Your task to perform on an android device: open app "Duolingo: language lessons" (install if not already installed) and enter user name: "omens@gmail.com" and password: "casks" Image 0: 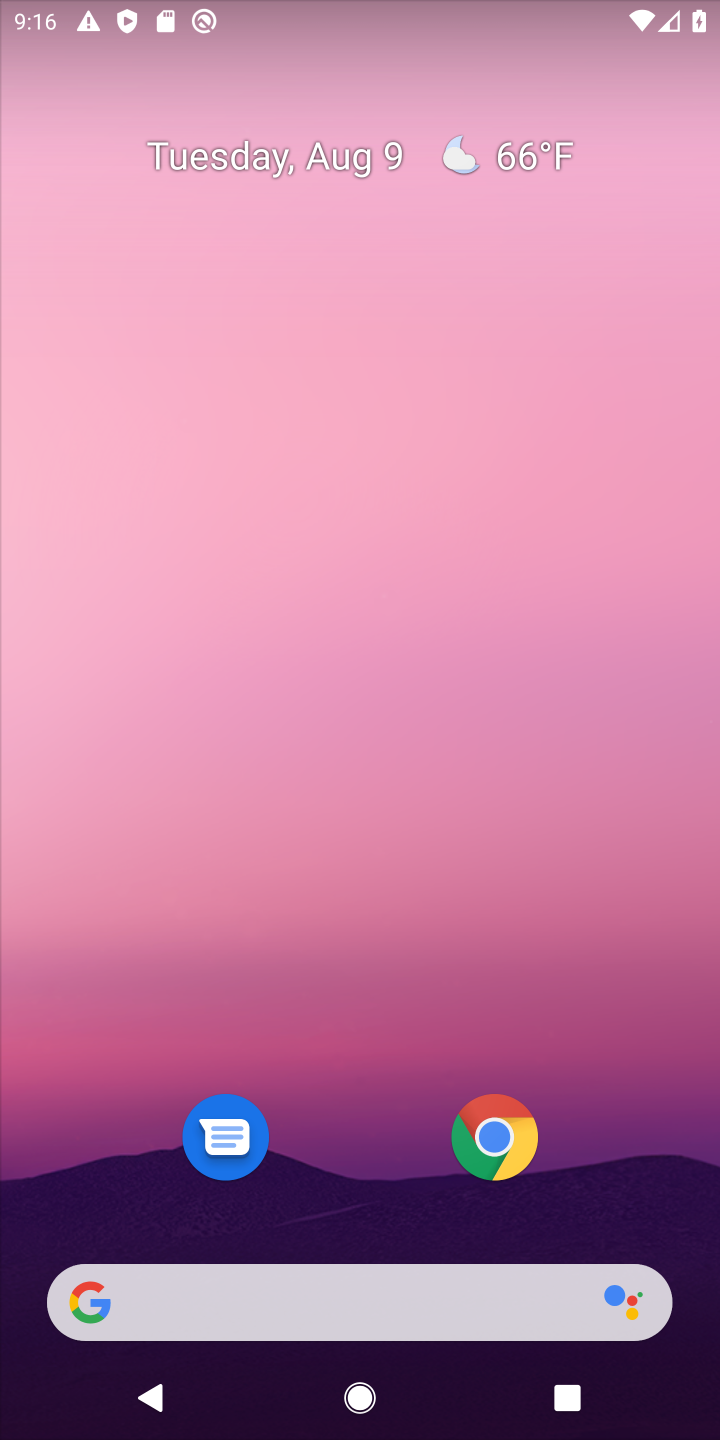
Step 0: drag from (648, 1212) to (405, 0)
Your task to perform on an android device: open app "Duolingo: language lessons" (install if not already installed) and enter user name: "omens@gmail.com" and password: "casks" Image 1: 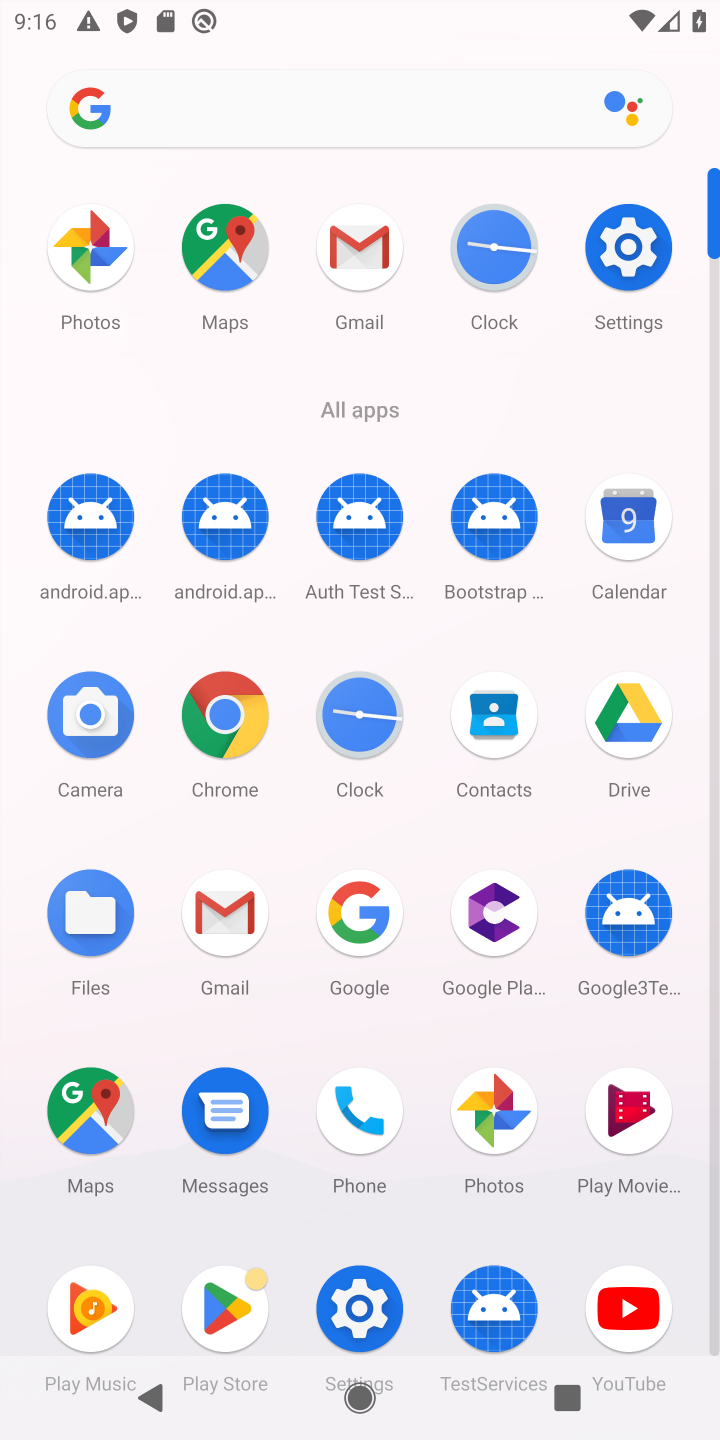
Step 1: click (224, 1311)
Your task to perform on an android device: open app "Duolingo: language lessons" (install if not already installed) and enter user name: "omens@gmail.com" and password: "casks" Image 2: 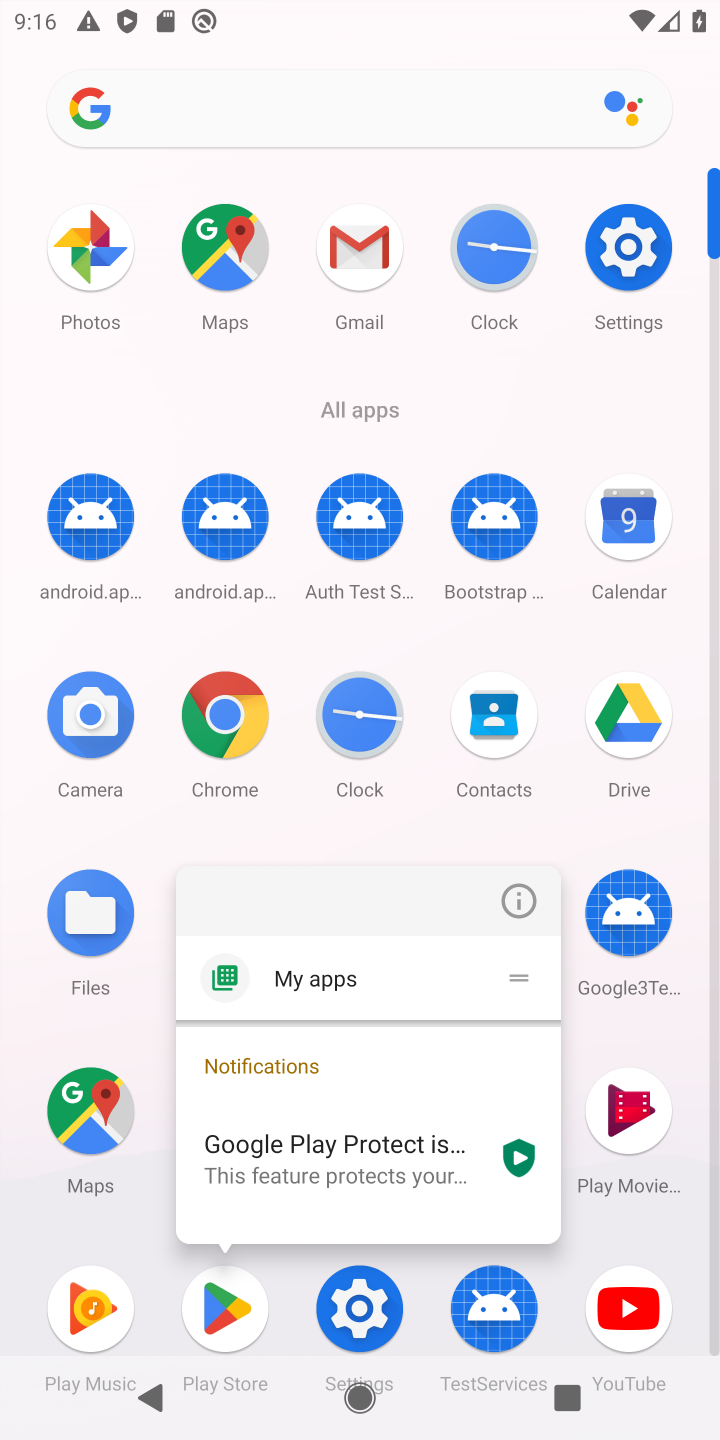
Step 2: click (248, 1296)
Your task to perform on an android device: open app "Duolingo: language lessons" (install if not already installed) and enter user name: "omens@gmail.com" and password: "casks" Image 3: 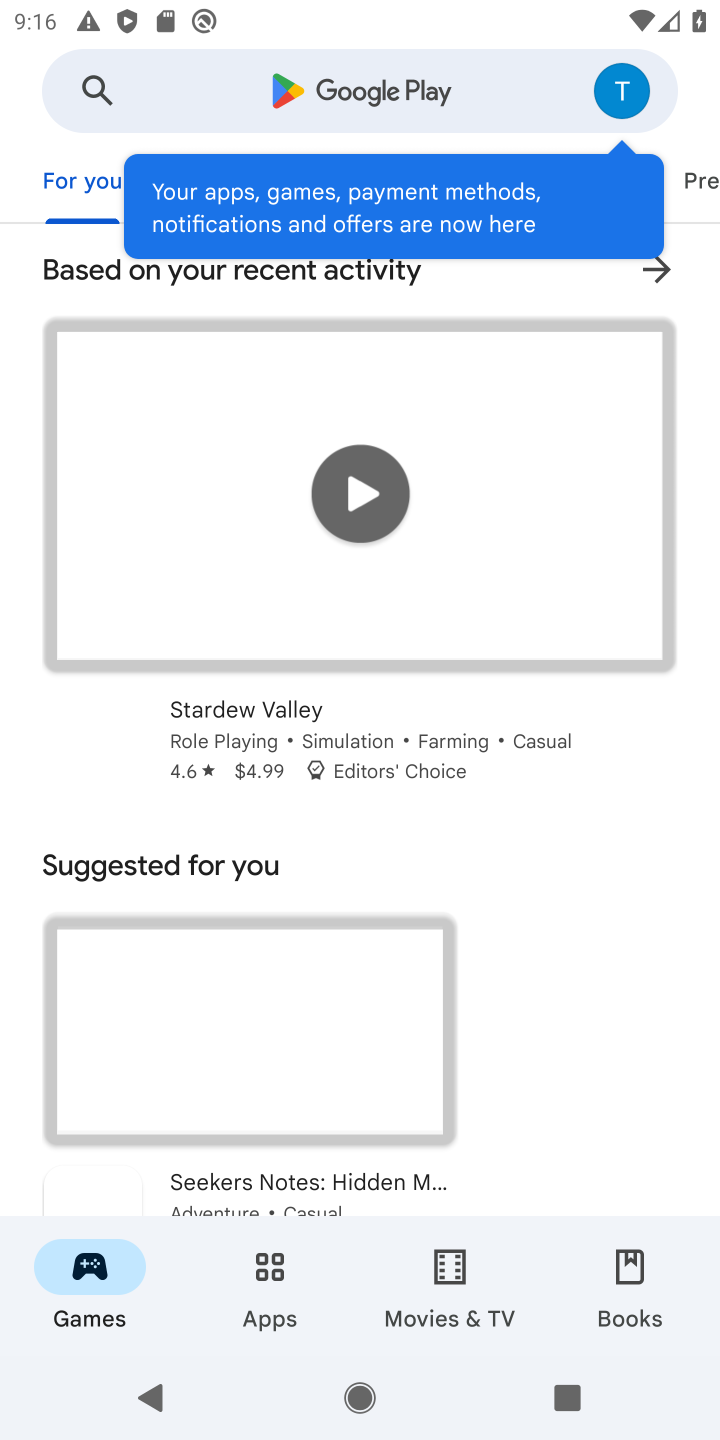
Step 3: click (340, 84)
Your task to perform on an android device: open app "Duolingo: language lessons" (install if not already installed) and enter user name: "omens@gmail.com" and password: "casks" Image 4: 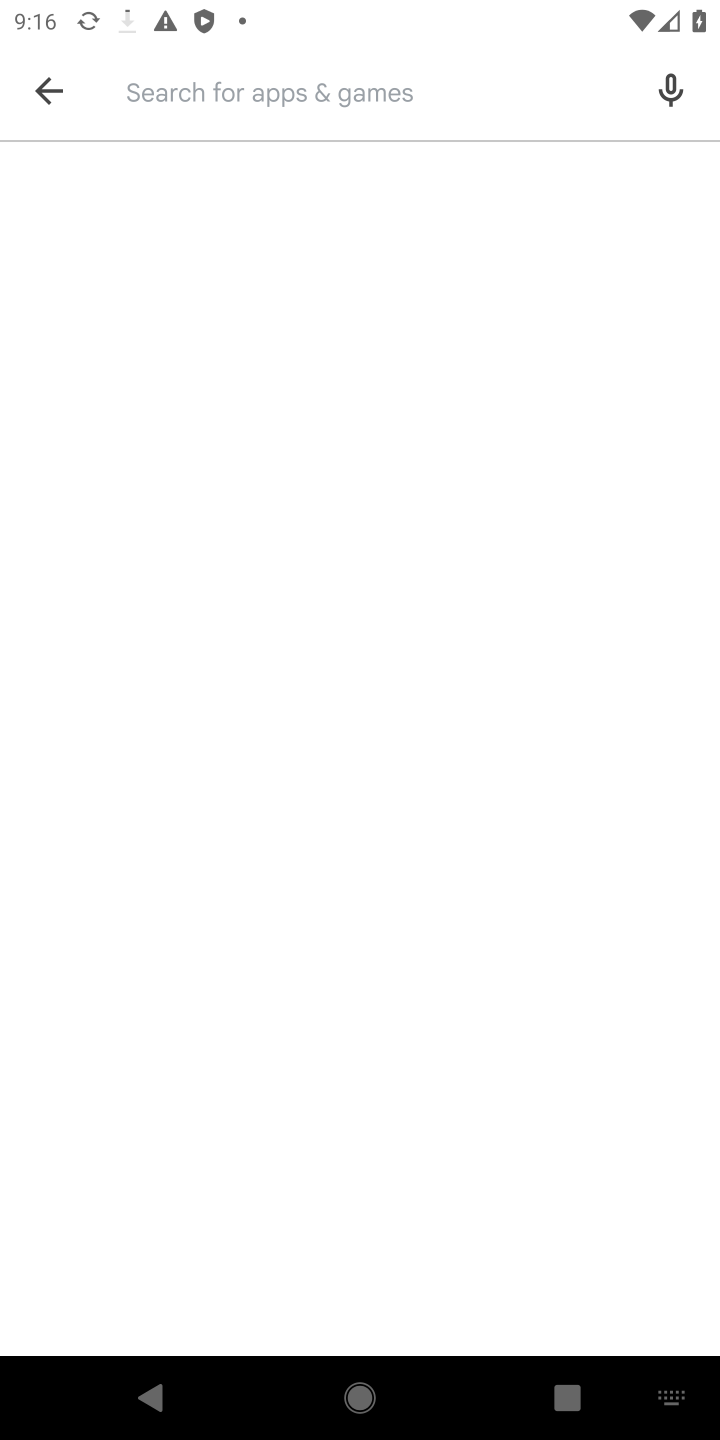
Step 4: type "Duolingo: language lessons"
Your task to perform on an android device: open app "Duolingo: language lessons" (install if not already installed) and enter user name: "omens@gmail.com" and password: "casks" Image 5: 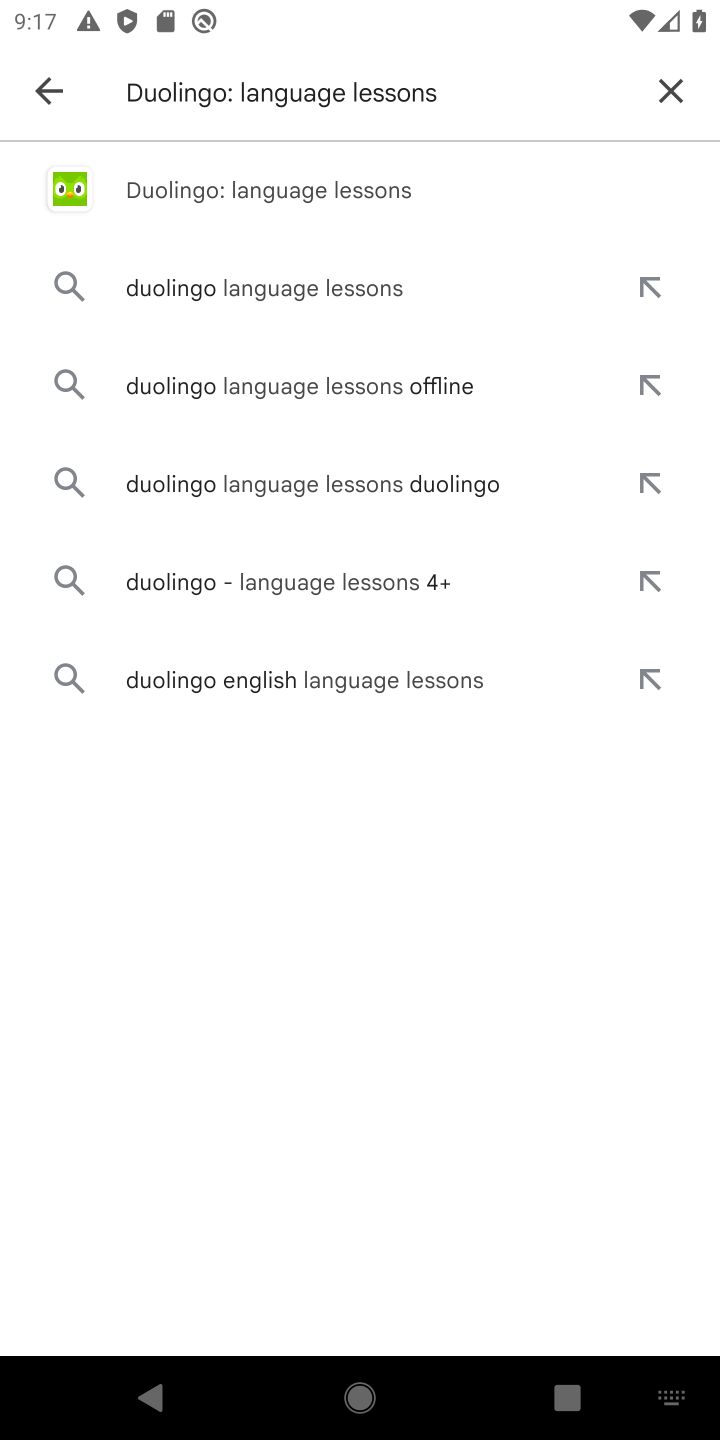
Step 5: click (267, 212)
Your task to perform on an android device: open app "Duolingo: language lessons" (install if not already installed) and enter user name: "omens@gmail.com" and password: "casks" Image 6: 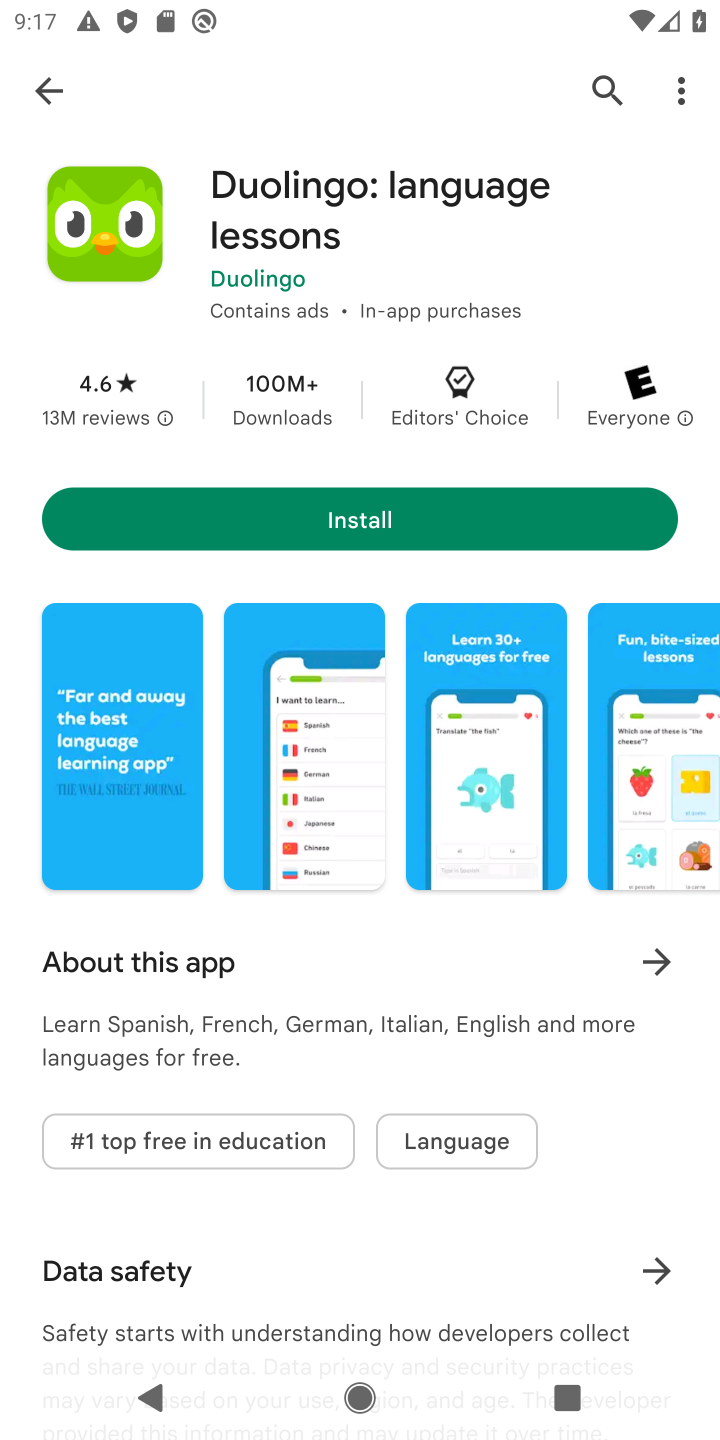
Step 6: task complete